Your task to perform on an android device: toggle sleep mode Image 0: 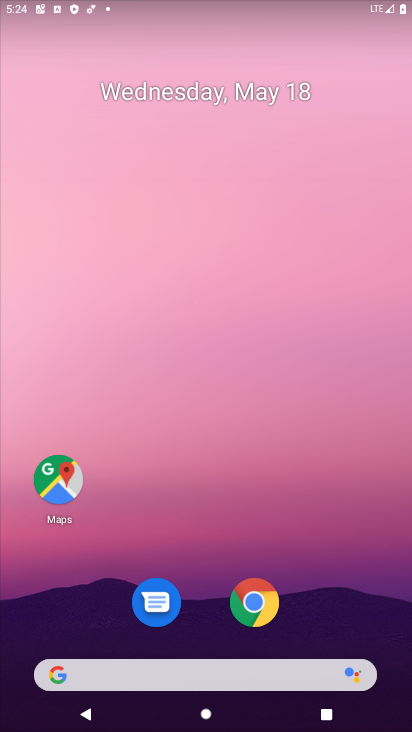
Step 0: drag from (324, 577) to (349, 44)
Your task to perform on an android device: toggle sleep mode Image 1: 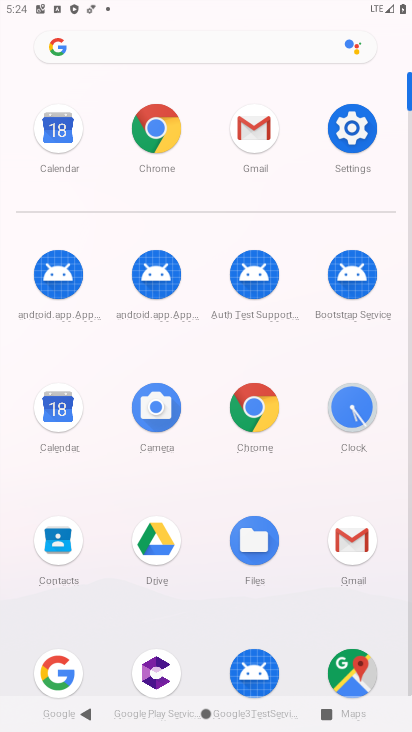
Step 1: click (347, 136)
Your task to perform on an android device: toggle sleep mode Image 2: 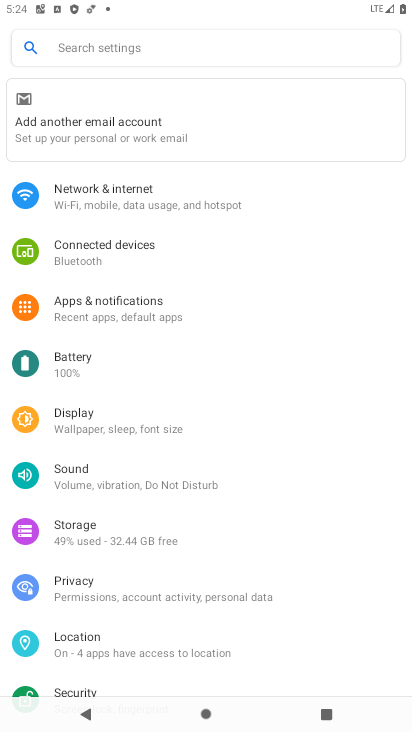
Step 2: click (144, 430)
Your task to perform on an android device: toggle sleep mode Image 3: 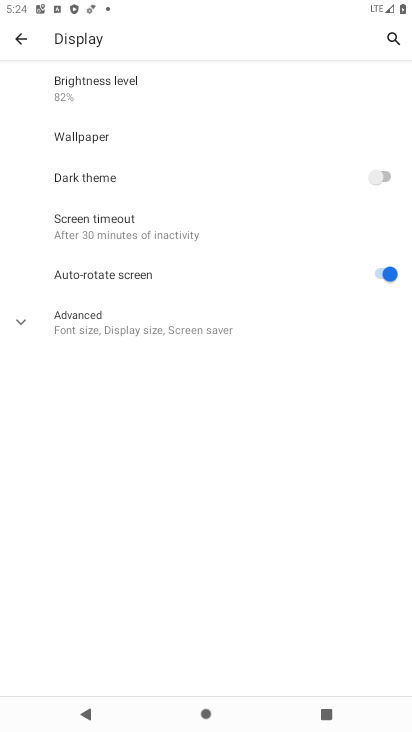
Step 3: task complete